Your task to perform on an android device: see creations saved in the google photos Image 0: 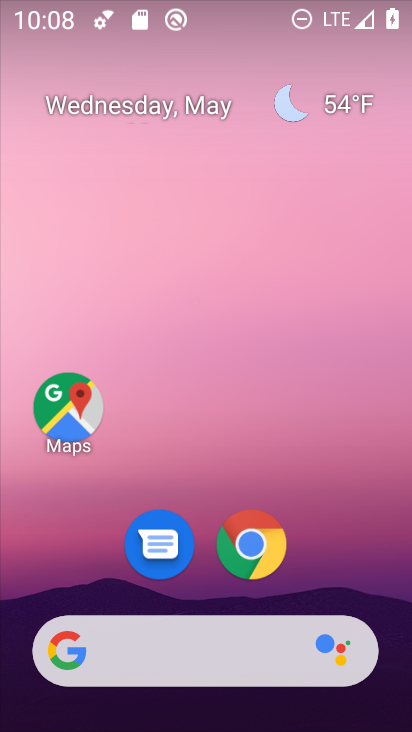
Step 0: drag from (224, 580) to (177, 156)
Your task to perform on an android device: see creations saved in the google photos Image 1: 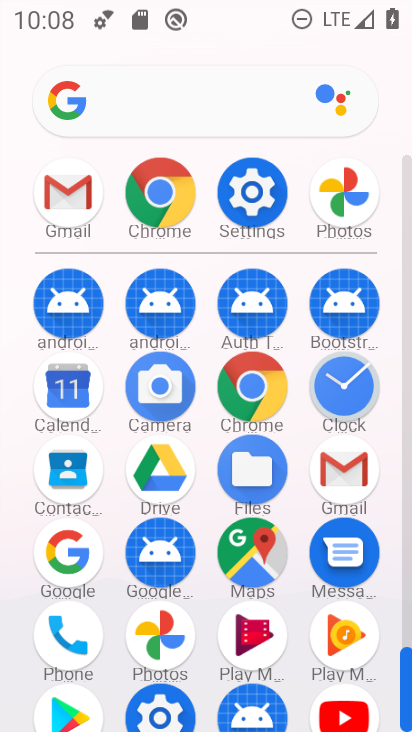
Step 1: click (364, 171)
Your task to perform on an android device: see creations saved in the google photos Image 2: 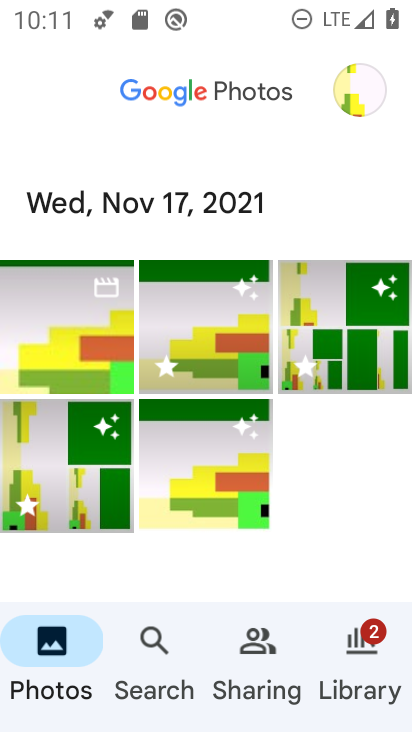
Step 2: task complete